Your task to perform on an android device: open chrome privacy settings Image 0: 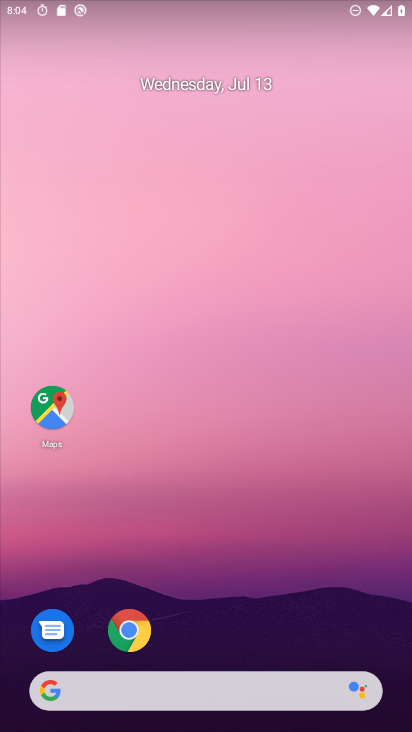
Step 0: drag from (367, 649) to (200, 7)
Your task to perform on an android device: open chrome privacy settings Image 1: 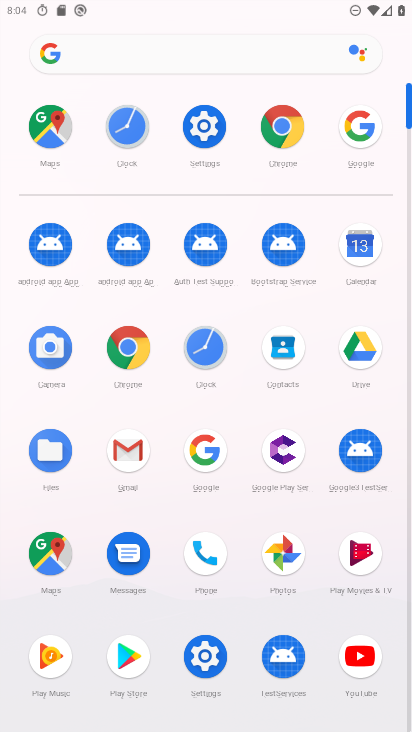
Step 1: click (273, 124)
Your task to perform on an android device: open chrome privacy settings Image 2: 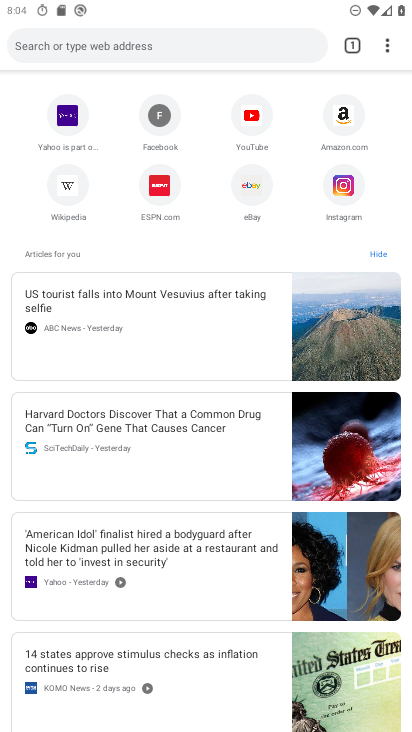
Step 2: click (389, 46)
Your task to perform on an android device: open chrome privacy settings Image 3: 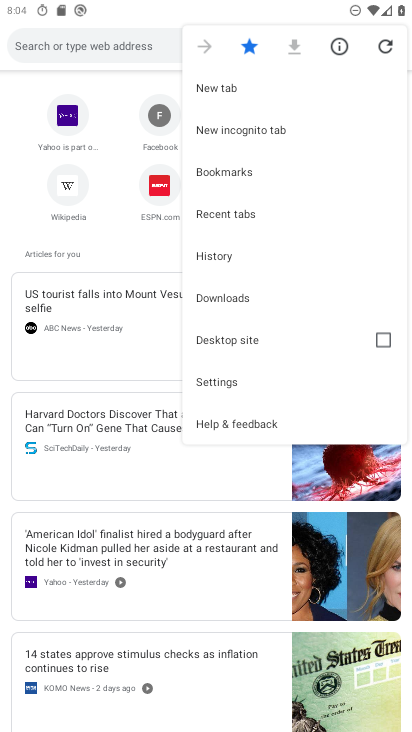
Step 3: click (214, 395)
Your task to perform on an android device: open chrome privacy settings Image 4: 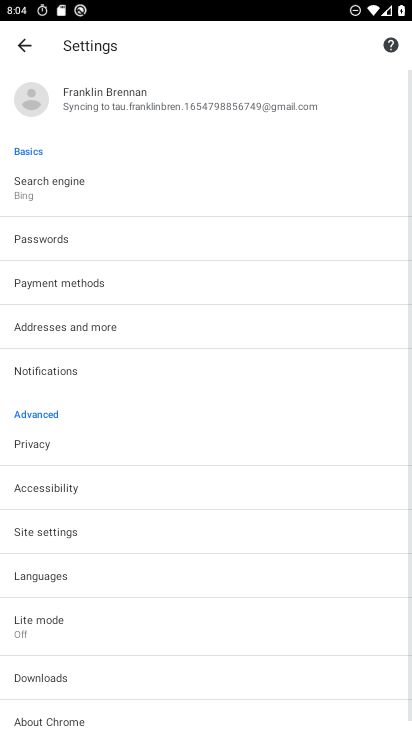
Step 4: click (56, 450)
Your task to perform on an android device: open chrome privacy settings Image 5: 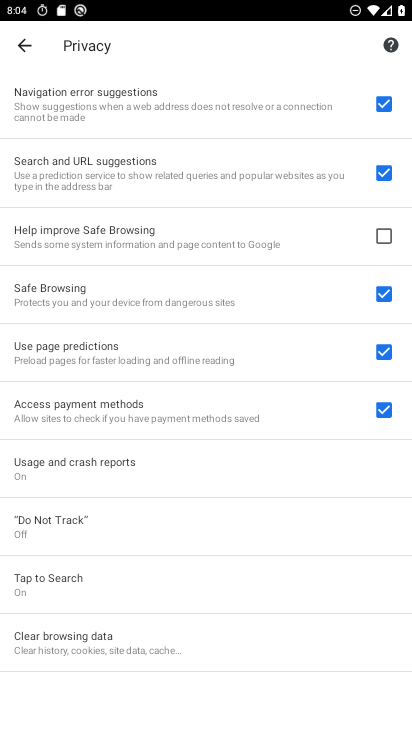
Step 5: task complete